Your task to perform on an android device: clear all cookies in the chrome app Image 0: 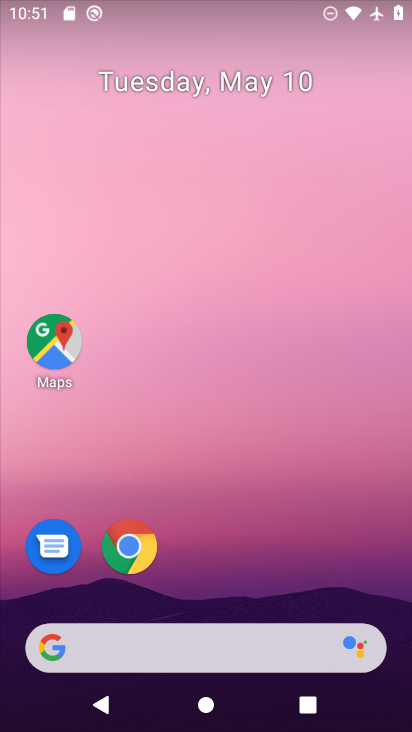
Step 0: click (130, 542)
Your task to perform on an android device: clear all cookies in the chrome app Image 1: 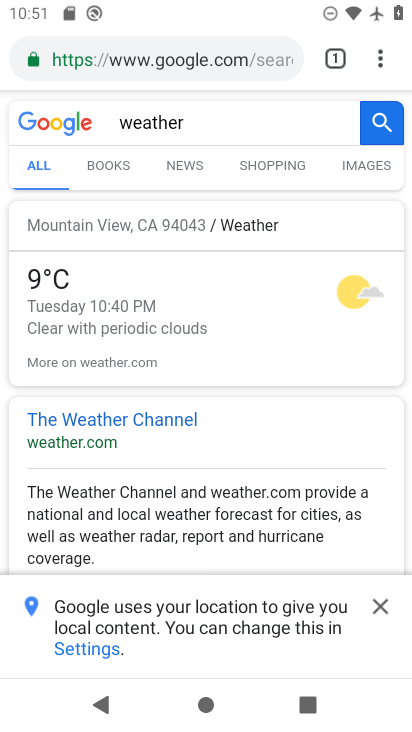
Step 1: drag from (379, 63) to (192, 239)
Your task to perform on an android device: clear all cookies in the chrome app Image 2: 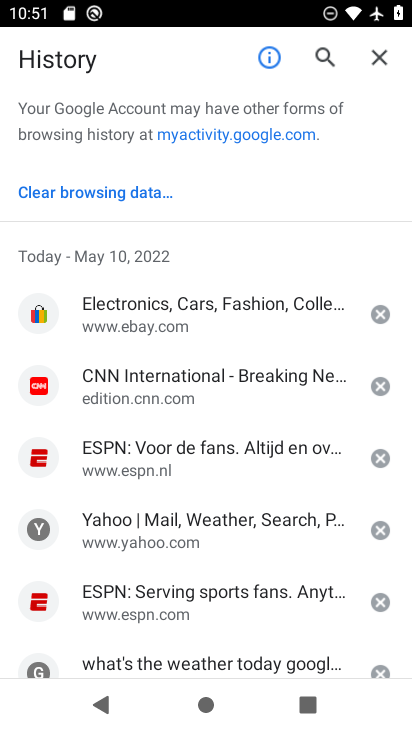
Step 2: click (100, 192)
Your task to perform on an android device: clear all cookies in the chrome app Image 3: 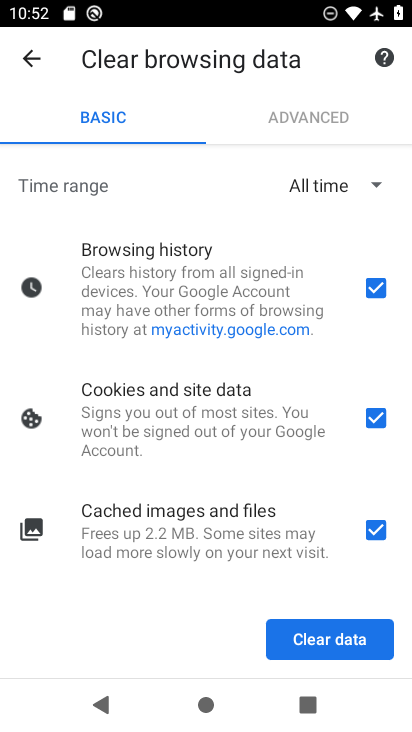
Step 3: click (346, 639)
Your task to perform on an android device: clear all cookies in the chrome app Image 4: 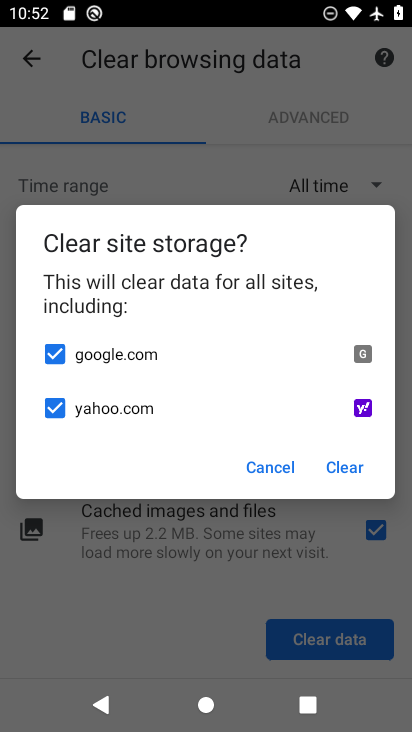
Step 4: click (347, 463)
Your task to perform on an android device: clear all cookies in the chrome app Image 5: 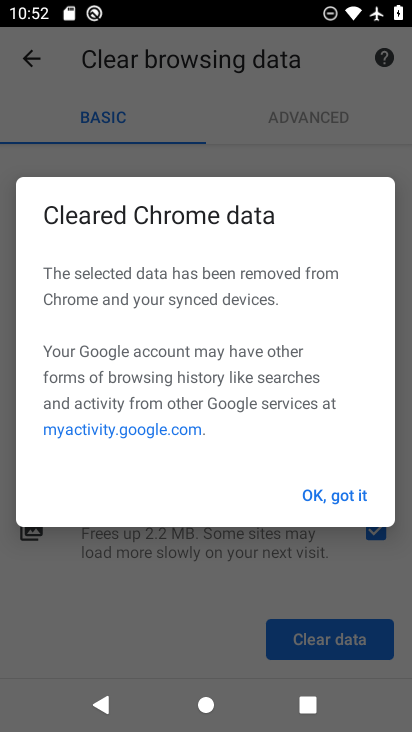
Step 5: task complete